Your task to perform on an android device: Go to accessibility settings Image 0: 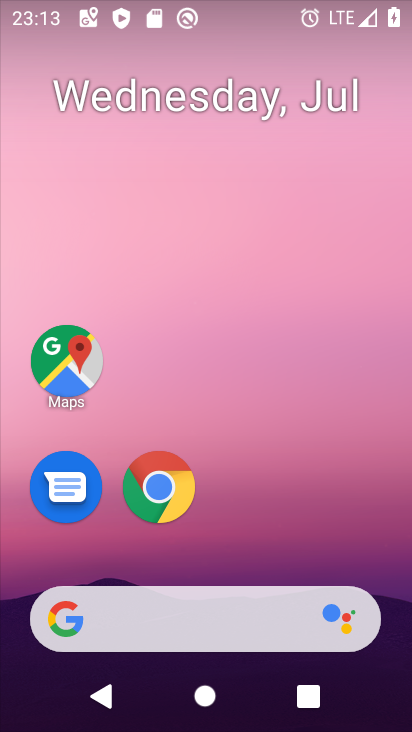
Step 0: drag from (261, 399) to (282, 3)
Your task to perform on an android device: Go to accessibility settings Image 1: 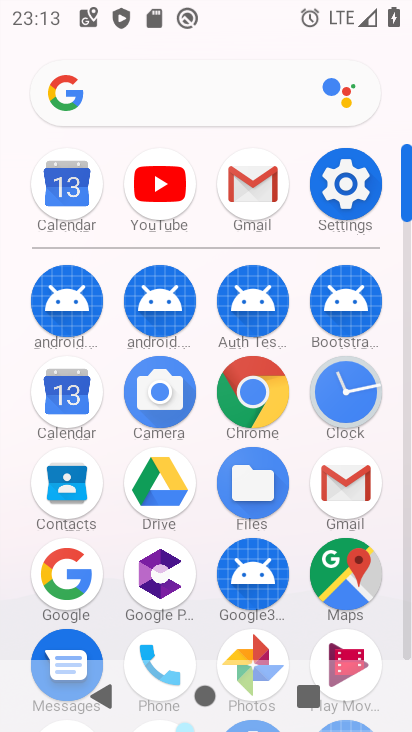
Step 1: click (344, 190)
Your task to perform on an android device: Go to accessibility settings Image 2: 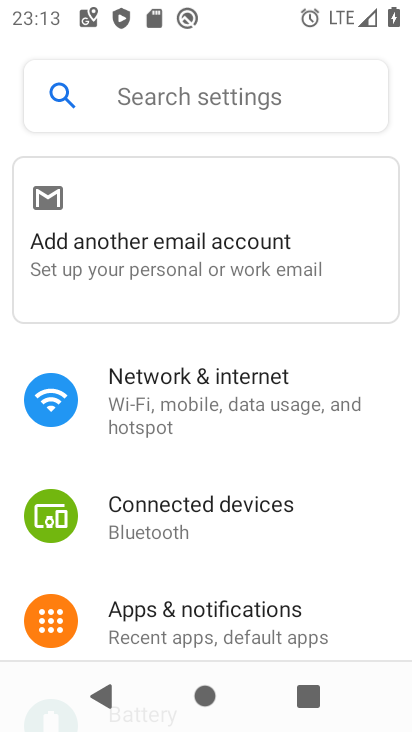
Step 2: drag from (201, 592) to (249, 100)
Your task to perform on an android device: Go to accessibility settings Image 3: 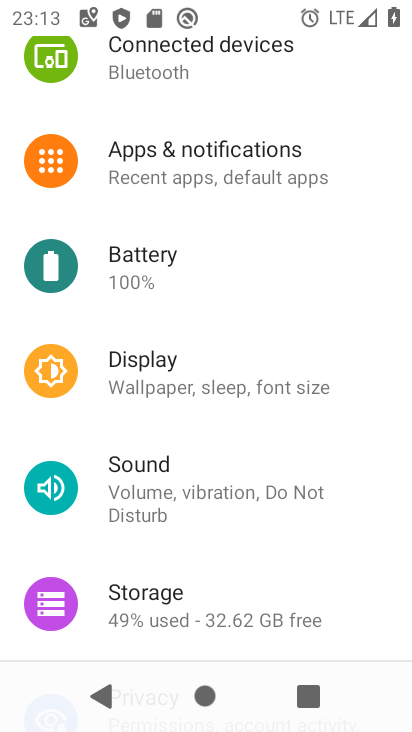
Step 3: drag from (244, 579) to (288, 107)
Your task to perform on an android device: Go to accessibility settings Image 4: 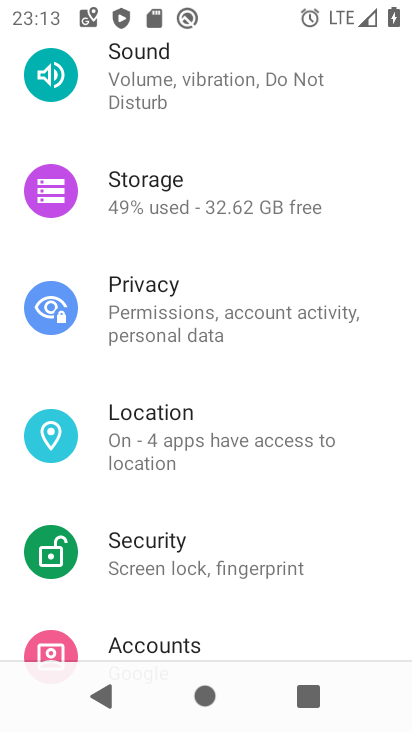
Step 4: drag from (203, 602) to (270, 146)
Your task to perform on an android device: Go to accessibility settings Image 5: 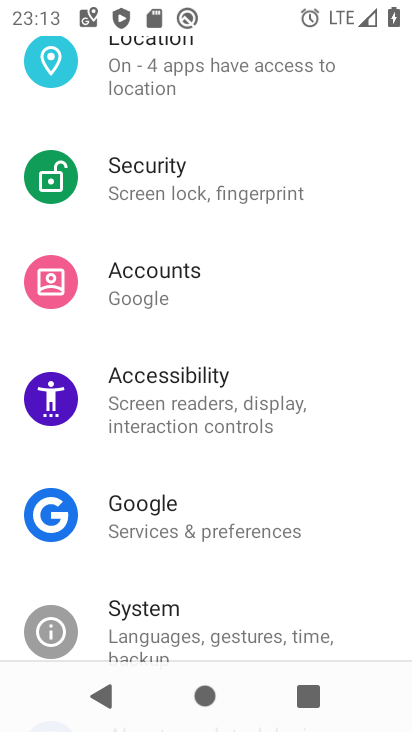
Step 5: click (179, 406)
Your task to perform on an android device: Go to accessibility settings Image 6: 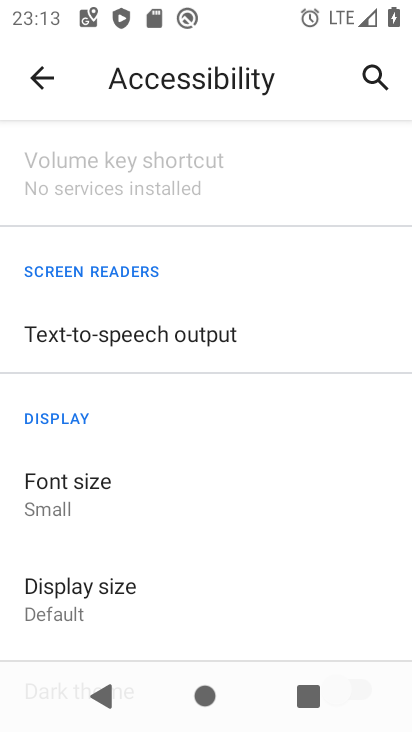
Step 6: task complete